Your task to perform on an android device: Search for pizza restaurants on Maps Image 0: 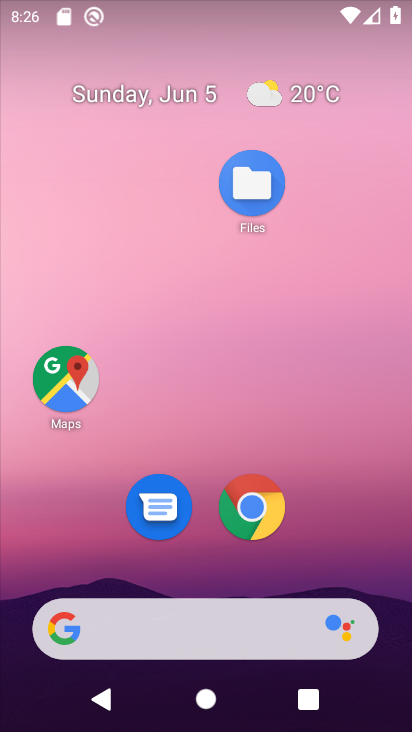
Step 0: click (73, 391)
Your task to perform on an android device: Search for pizza restaurants on Maps Image 1: 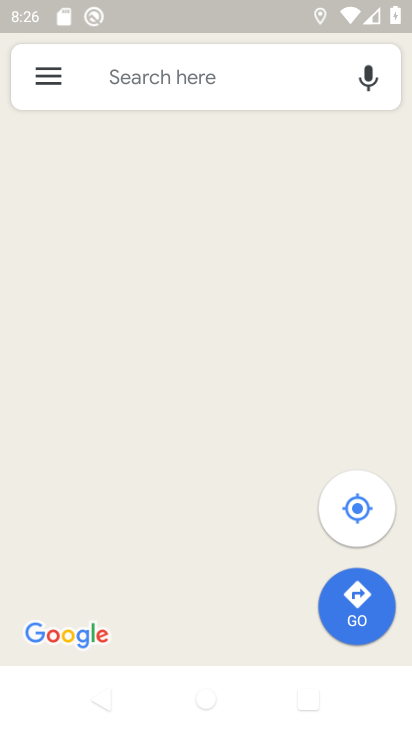
Step 1: click (212, 102)
Your task to perform on an android device: Search for pizza restaurants on Maps Image 2: 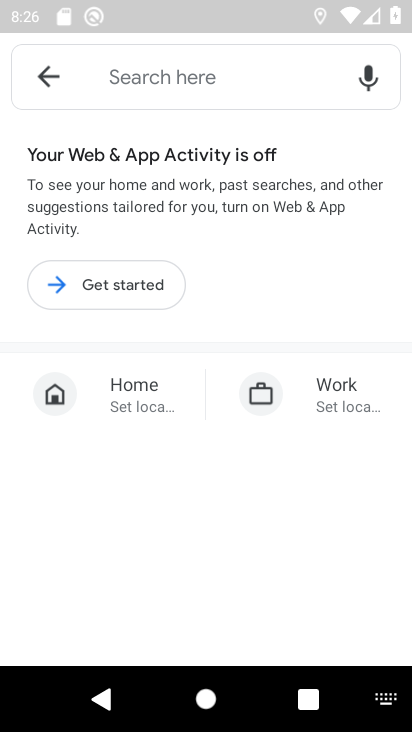
Step 2: click (148, 292)
Your task to perform on an android device: Search for pizza restaurants on Maps Image 3: 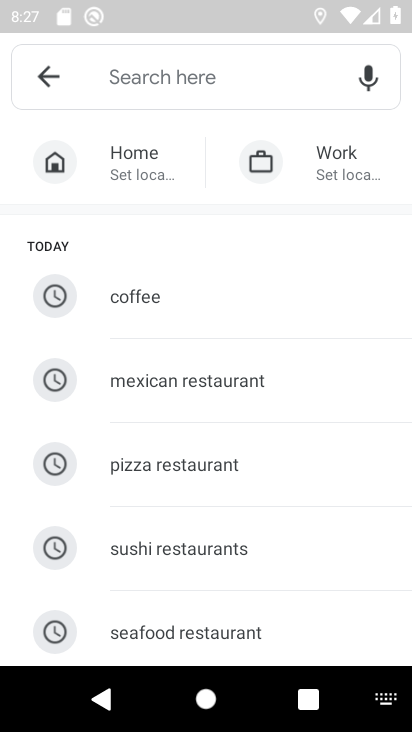
Step 3: click (117, 466)
Your task to perform on an android device: Search for pizza restaurants on Maps Image 4: 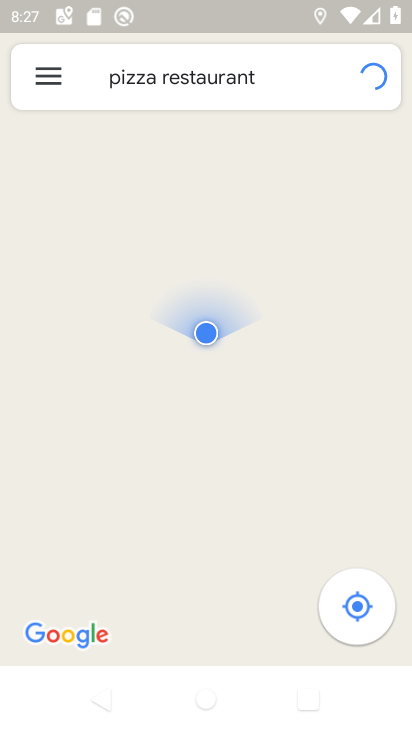
Step 4: task complete